Your task to perform on an android device: Open Chrome and go to settings Image 0: 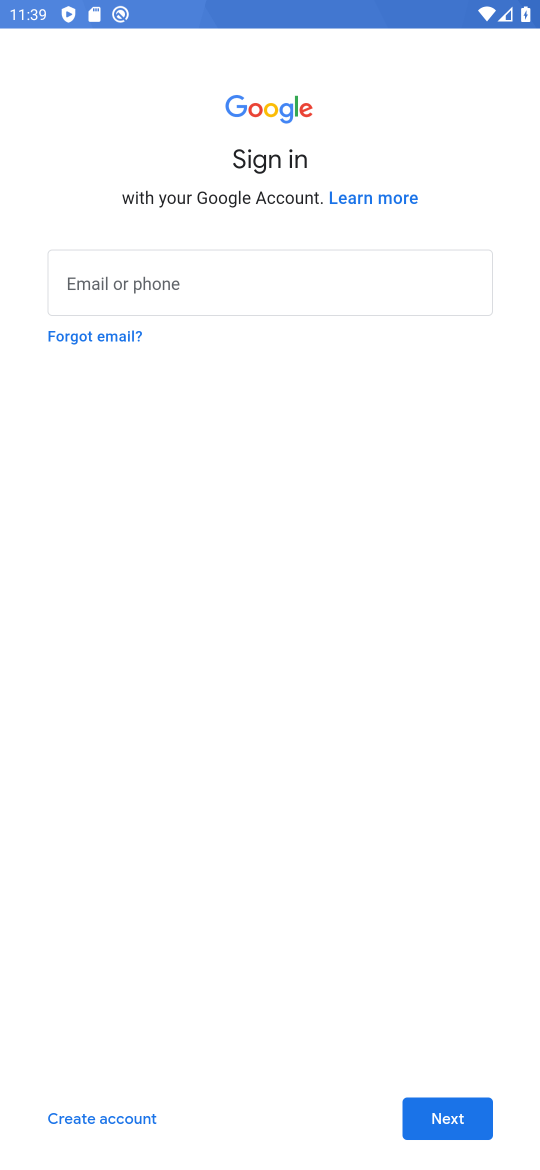
Step 0: press home button
Your task to perform on an android device: Open Chrome and go to settings Image 1: 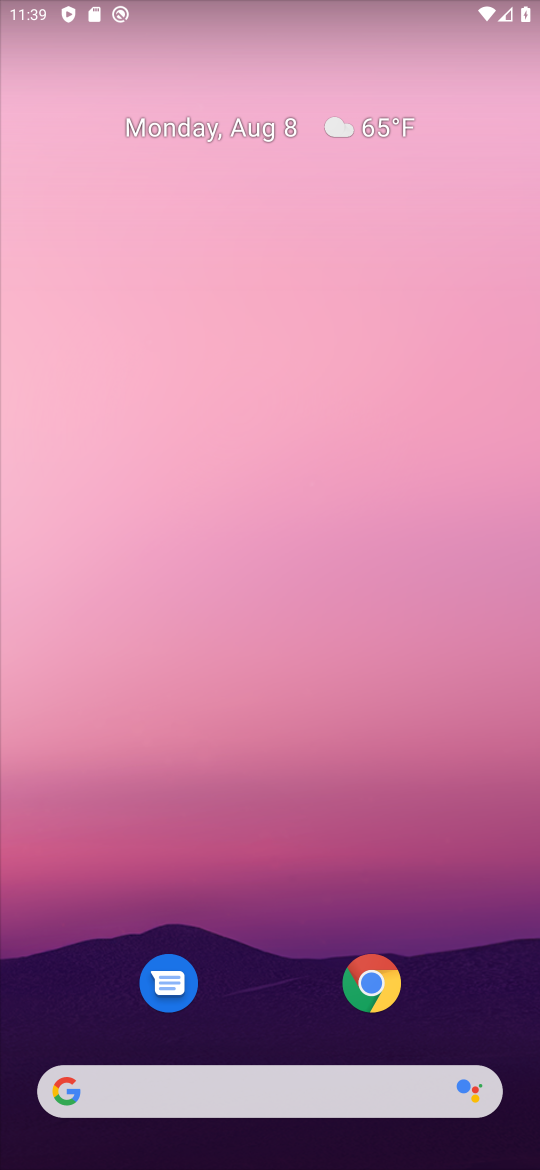
Step 1: click (370, 1002)
Your task to perform on an android device: Open Chrome and go to settings Image 2: 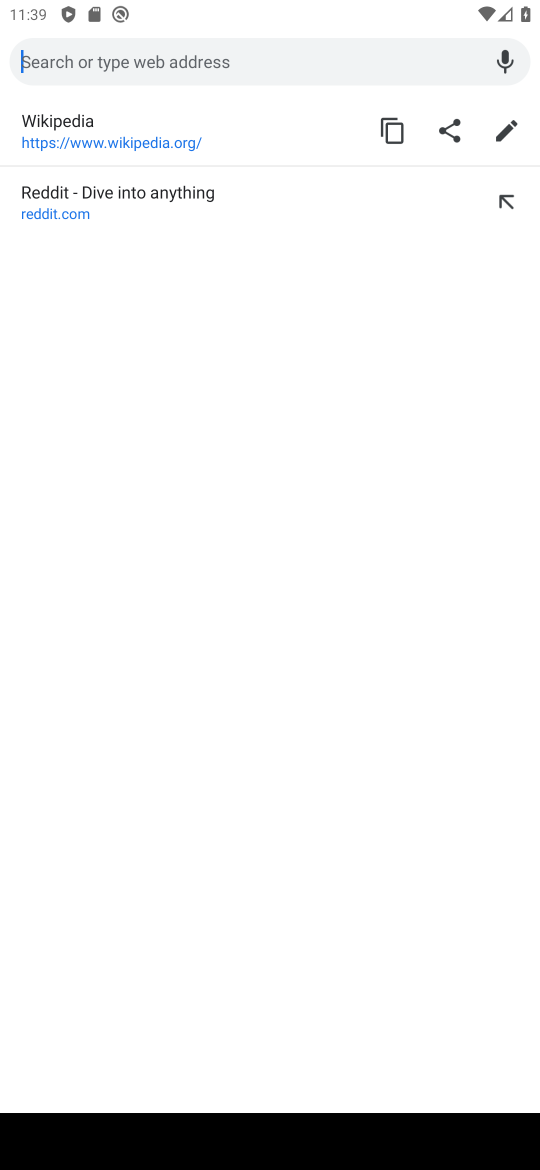
Step 2: task complete